Your task to perform on an android device: turn off data saver in the chrome app Image 0: 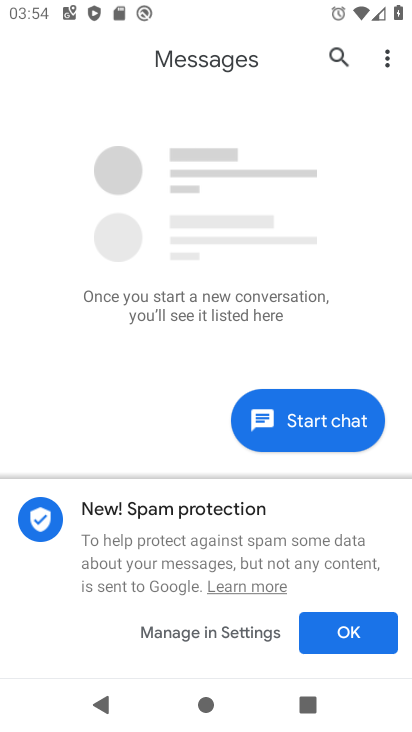
Step 0: press home button
Your task to perform on an android device: turn off data saver in the chrome app Image 1: 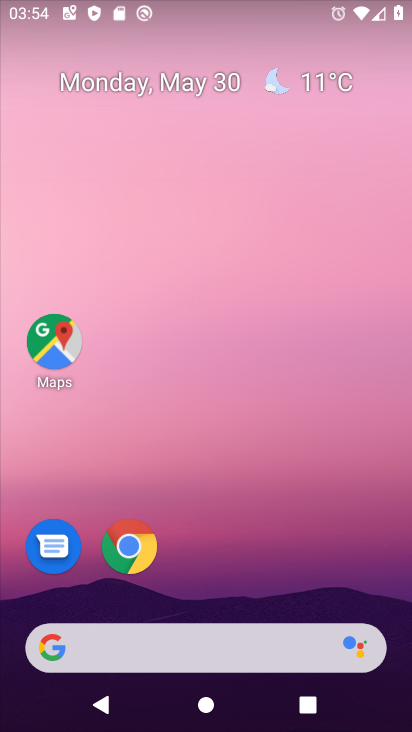
Step 1: click (132, 534)
Your task to perform on an android device: turn off data saver in the chrome app Image 2: 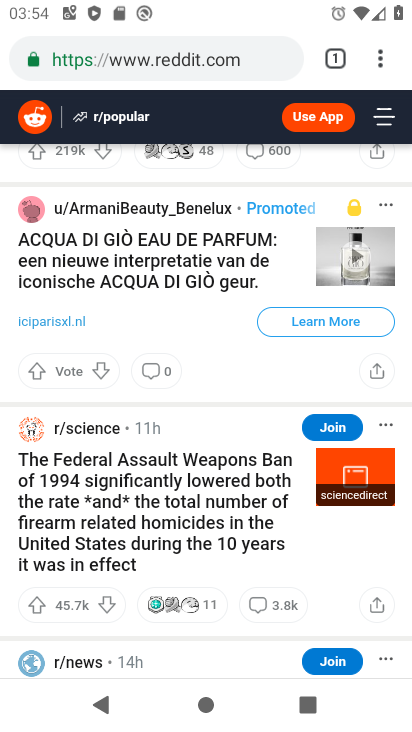
Step 2: click (372, 53)
Your task to perform on an android device: turn off data saver in the chrome app Image 3: 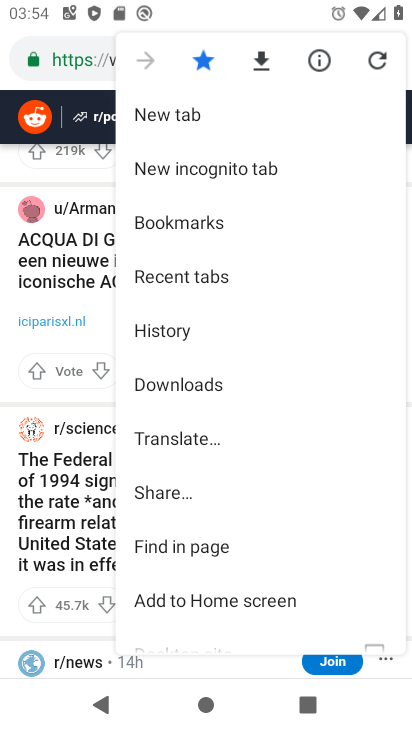
Step 3: drag from (242, 527) to (267, 188)
Your task to perform on an android device: turn off data saver in the chrome app Image 4: 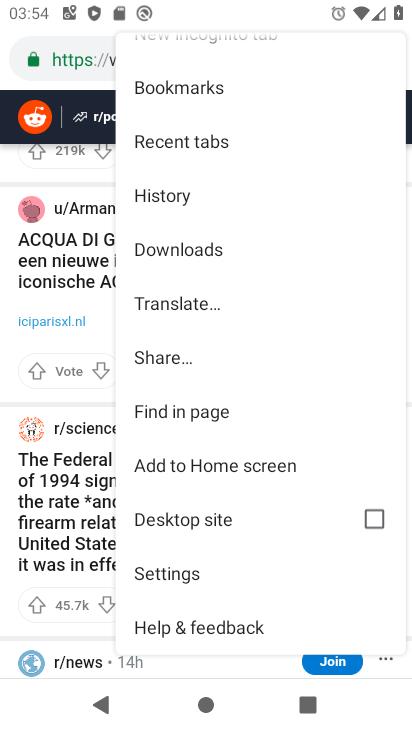
Step 4: click (203, 579)
Your task to perform on an android device: turn off data saver in the chrome app Image 5: 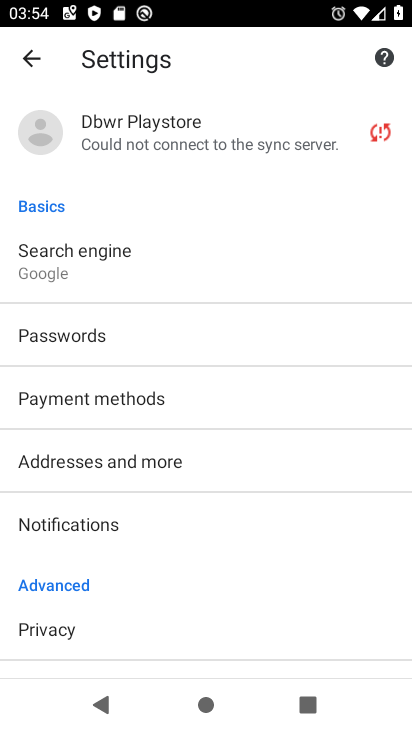
Step 5: drag from (156, 616) to (185, 124)
Your task to perform on an android device: turn off data saver in the chrome app Image 6: 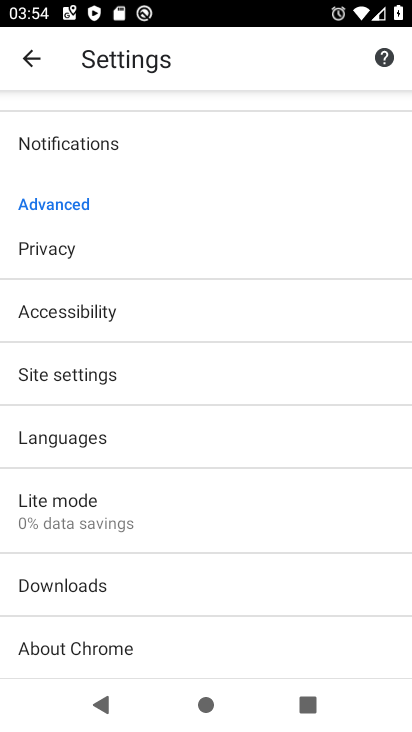
Step 6: click (110, 508)
Your task to perform on an android device: turn off data saver in the chrome app Image 7: 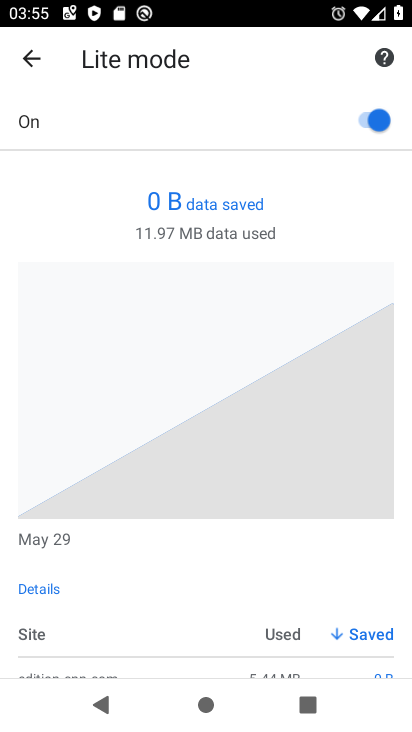
Step 7: click (361, 114)
Your task to perform on an android device: turn off data saver in the chrome app Image 8: 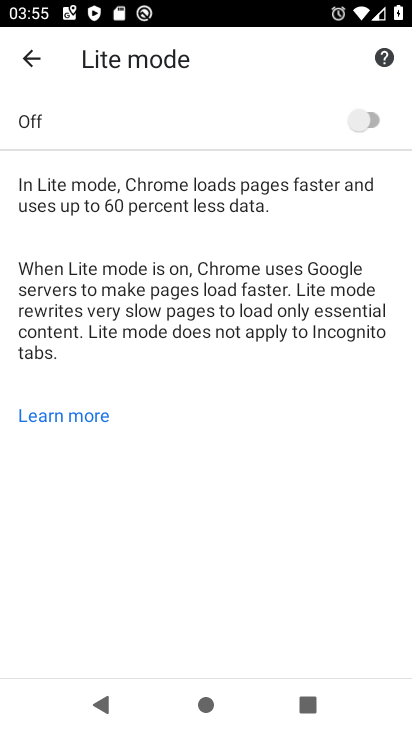
Step 8: task complete